Your task to perform on an android device: allow cookies in the chrome app Image 0: 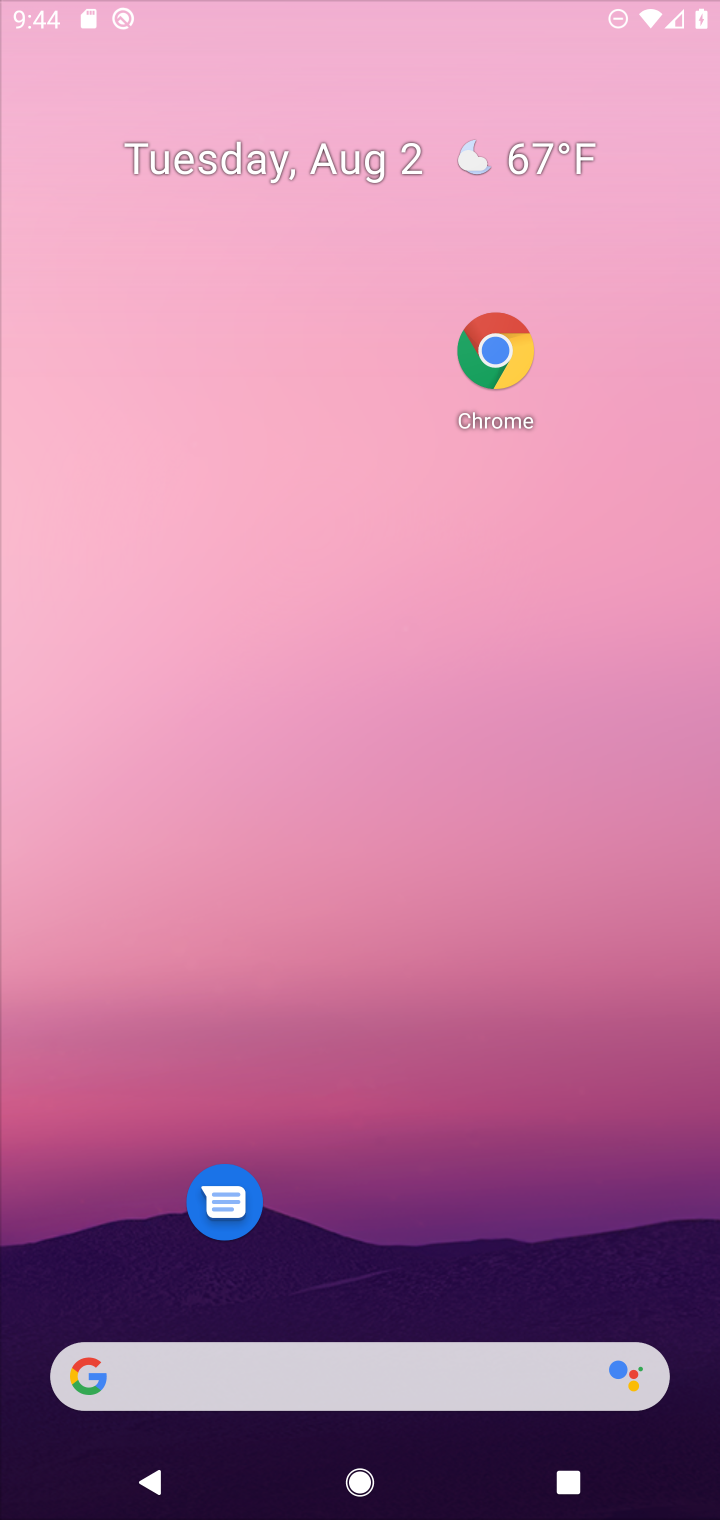
Step 0: press home button
Your task to perform on an android device: allow cookies in the chrome app Image 1: 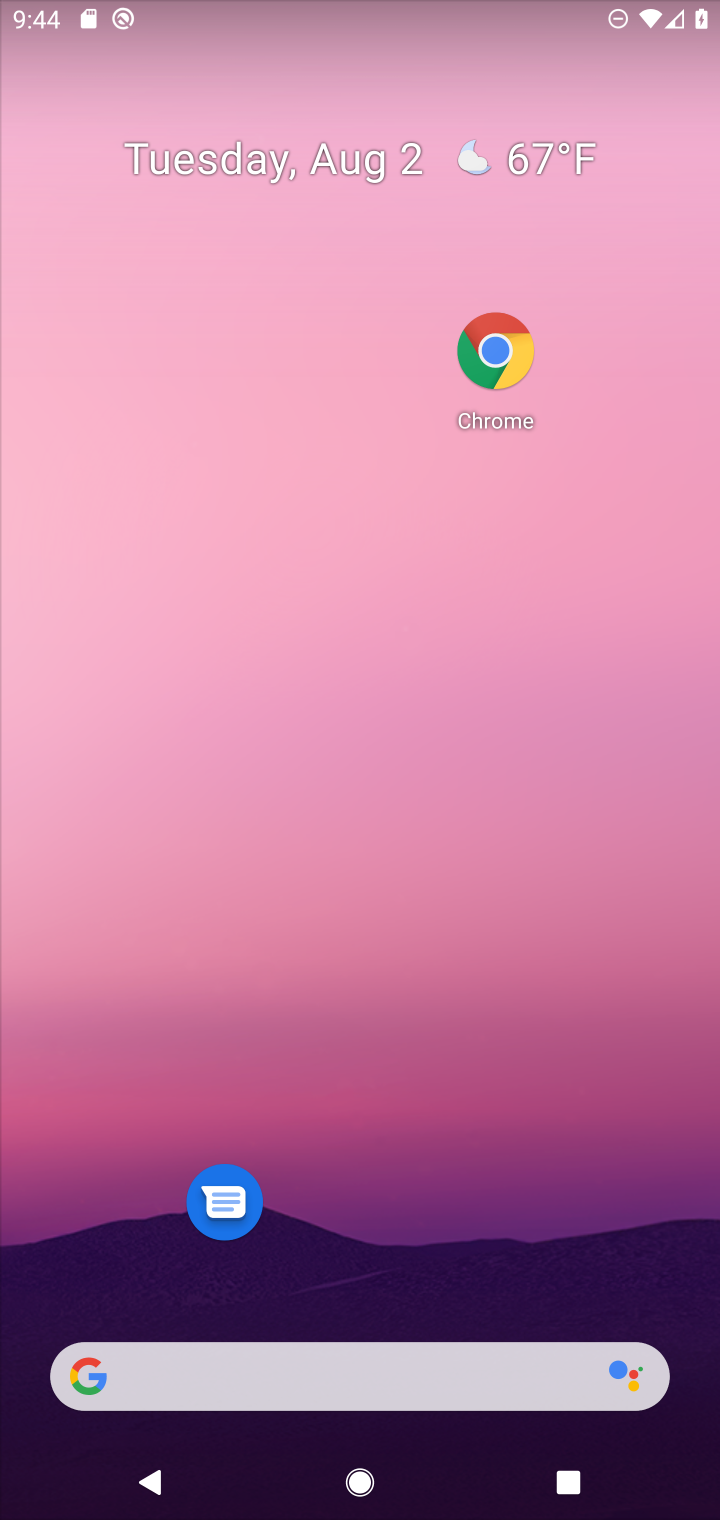
Step 1: click (498, 366)
Your task to perform on an android device: allow cookies in the chrome app Image 2: 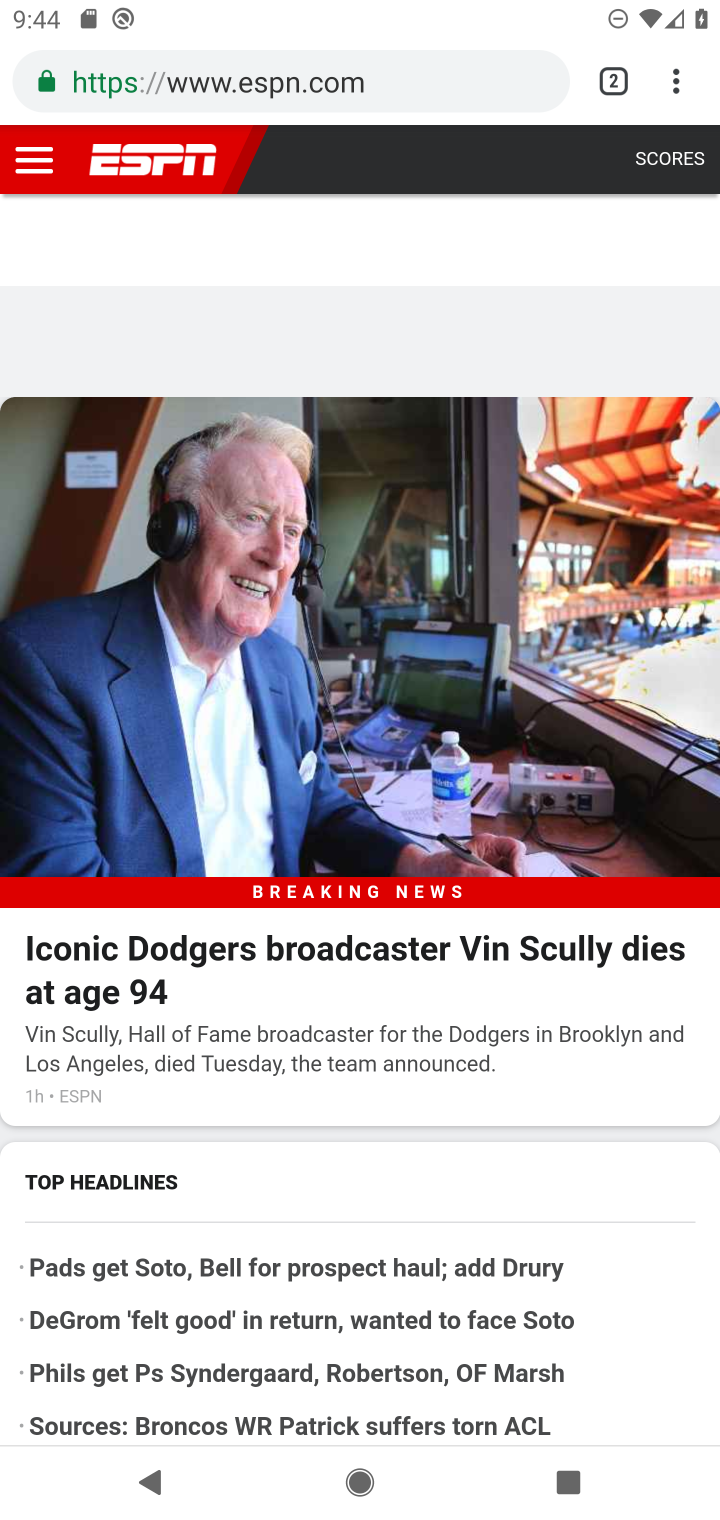
Step 2: drag from (674, 82) to (428, 987)
Your task to perform on an android device: allow cookies in the chrome app Image 3: 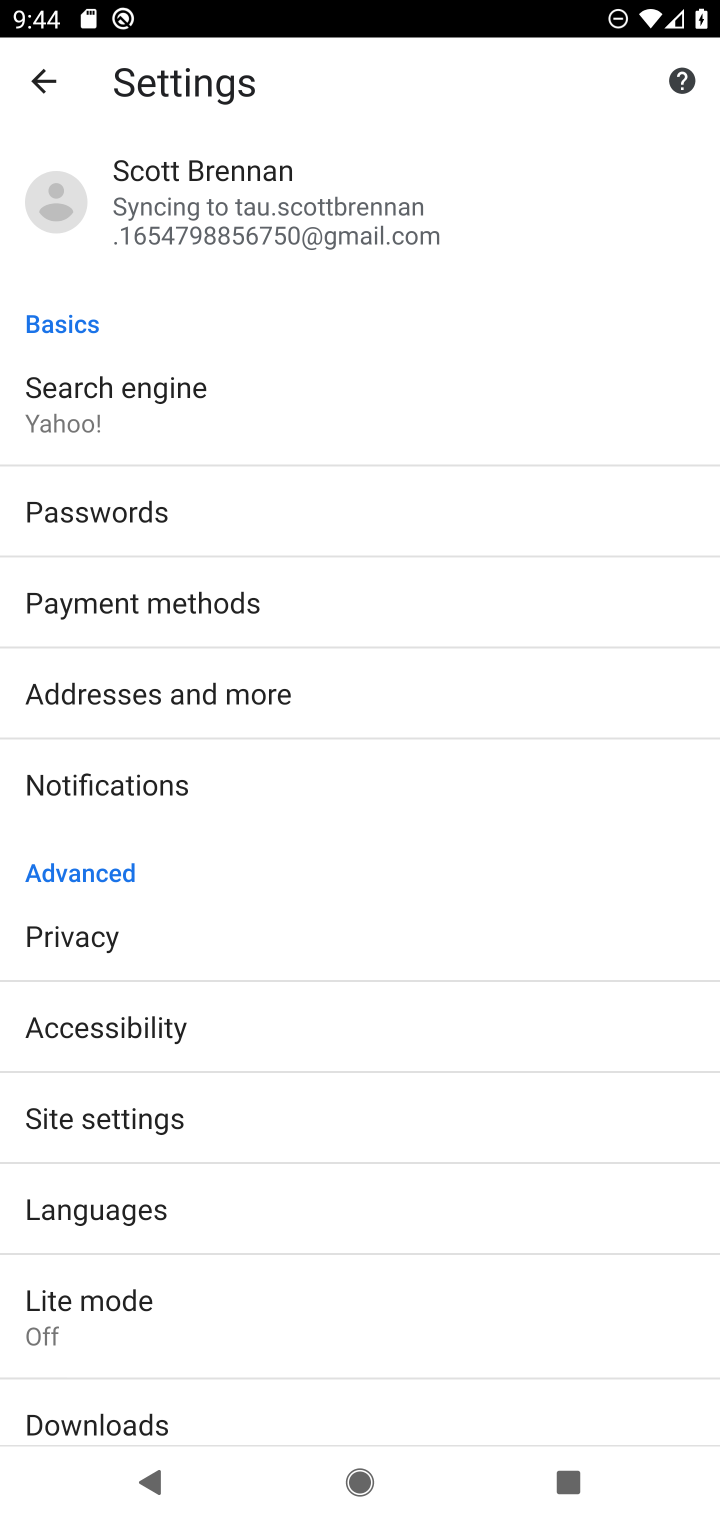
Step 3: click (132, 1109)
Your task to perform on an android device: allow cookies in the chrome app Image 4: 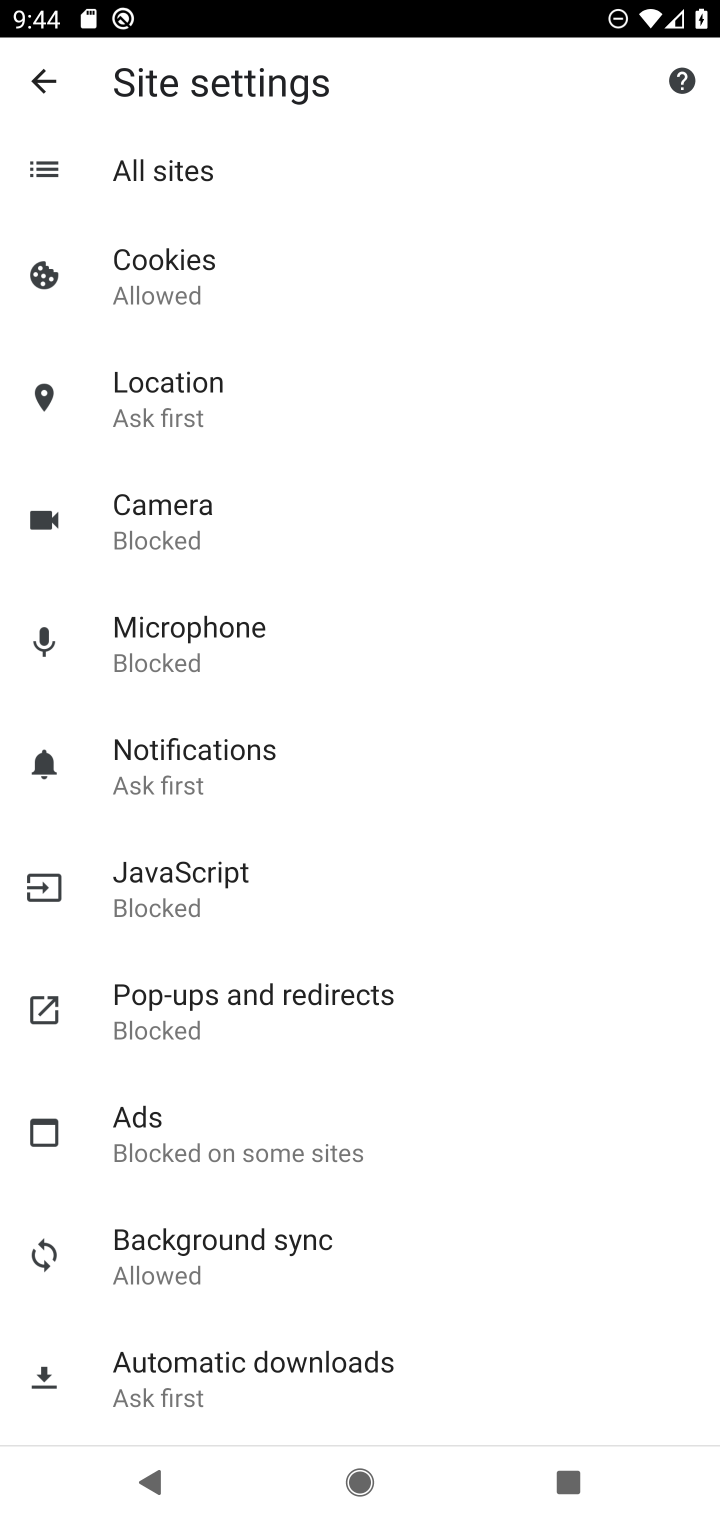
Step 4: click (167, 268)
Your task to perform on an android device: allow cookies in the chrome app Image 5: 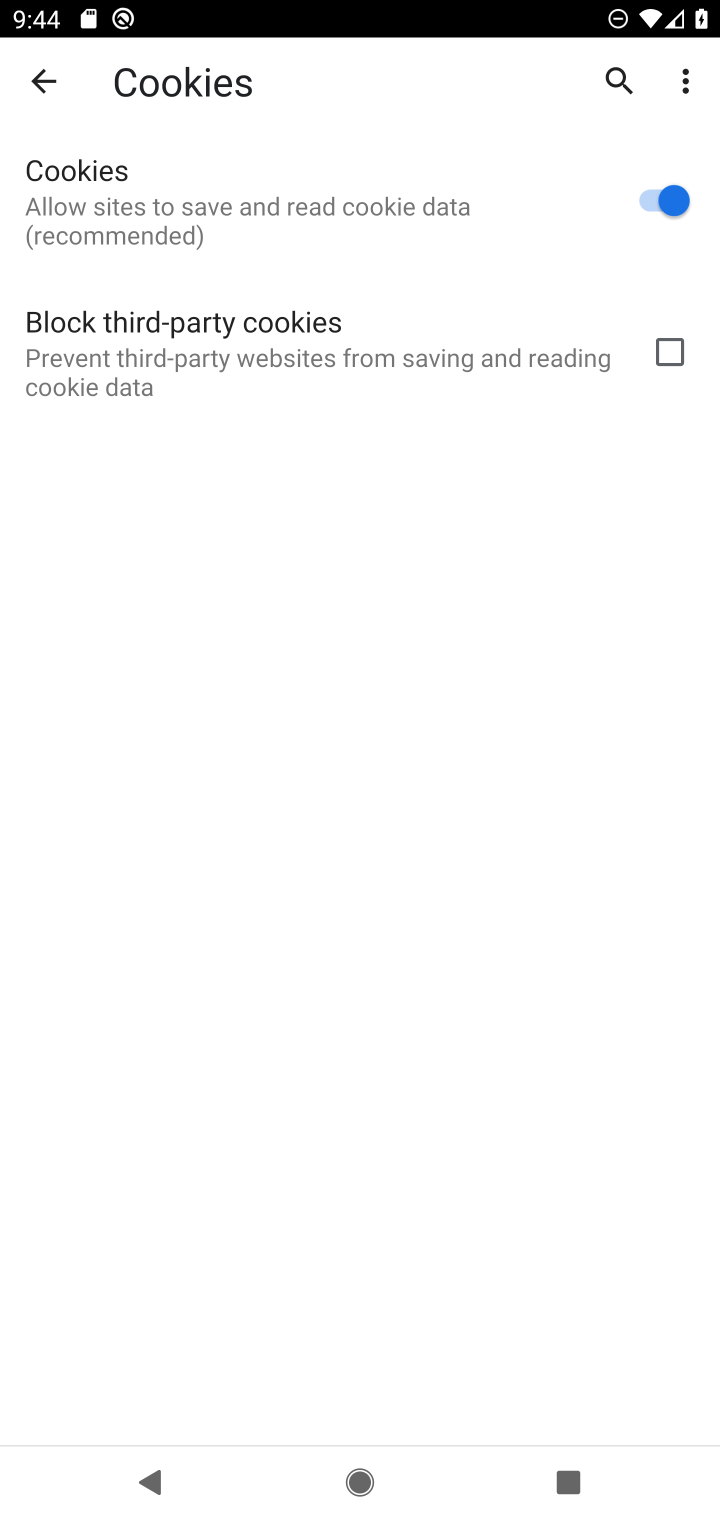
Step 5: task complete